Your task to perform on an android device: Search for pizza restaurants on Maps Image 0: 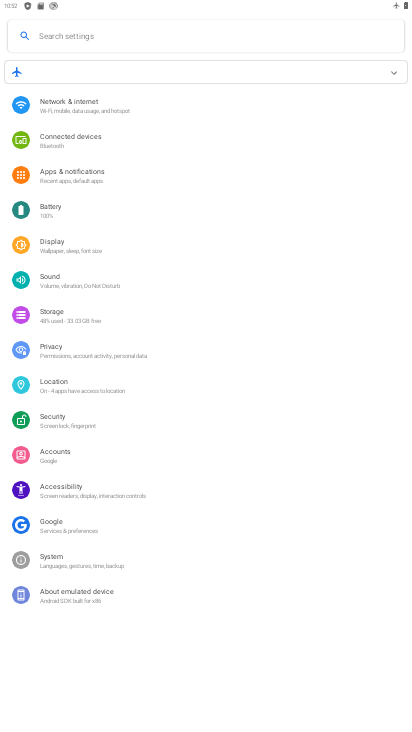
Step 0: press home button
Your task to perform on an android device: Search for pizza restaurants on Maps Image 1: 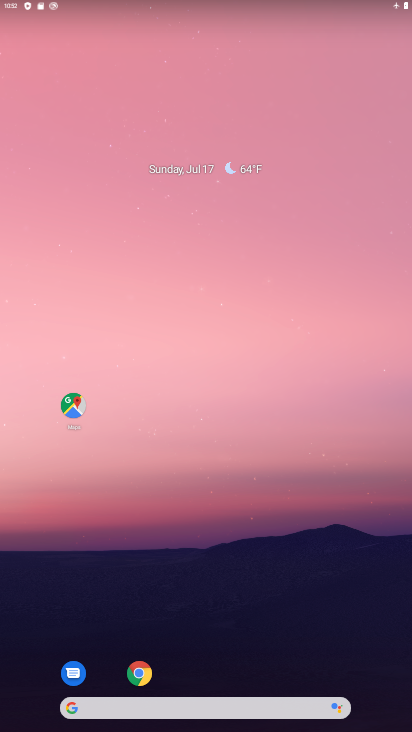
Step 1: drag from (253, 656) to (228, 59)
Your task to perform on an android device: Search for pizza restaurants on Maps Image 2: 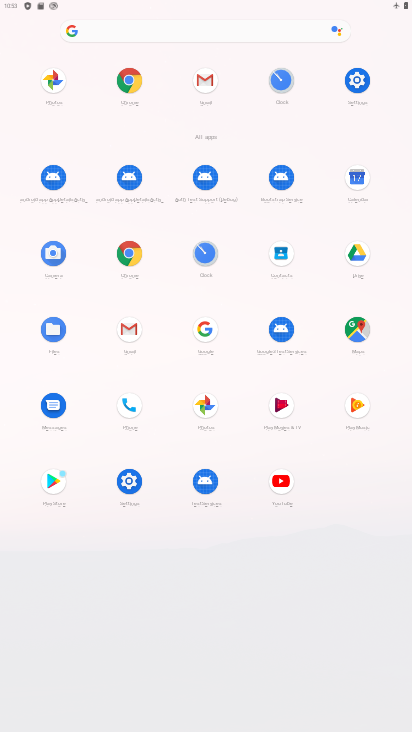
Step 2: click (356, 325)
Your task to perform on an android device: Search for pizza restaurants on Maps Image 3: 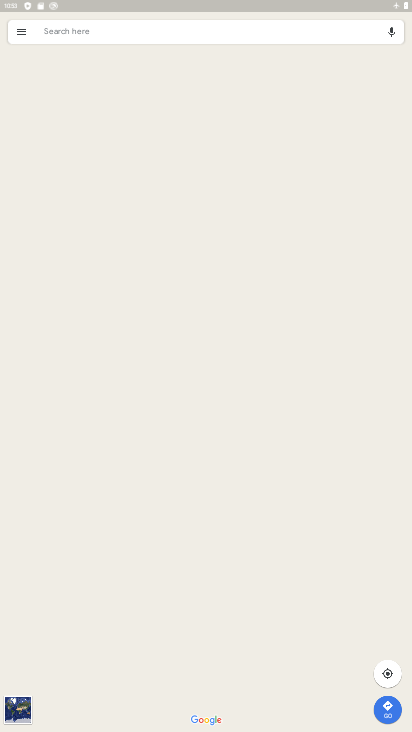
Step 3: click (225, 36)
Your task to perform on an android device: Search for pizza restaurants on Maps Image 4: 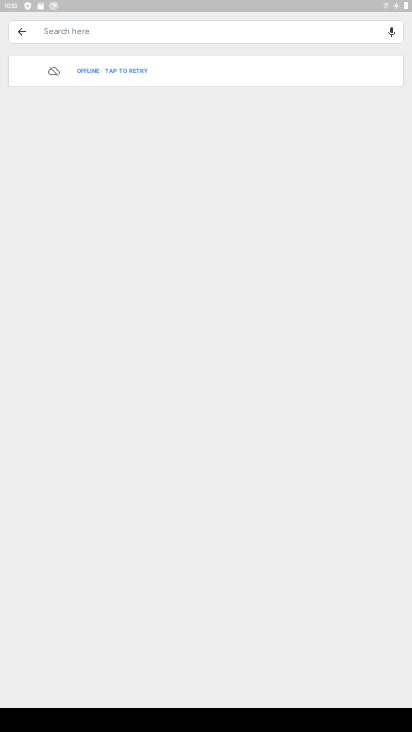
Step 4: type "pizza restaurants"
Your task to perform on an android device: Search for pizza restaurants on Maps Image 5: 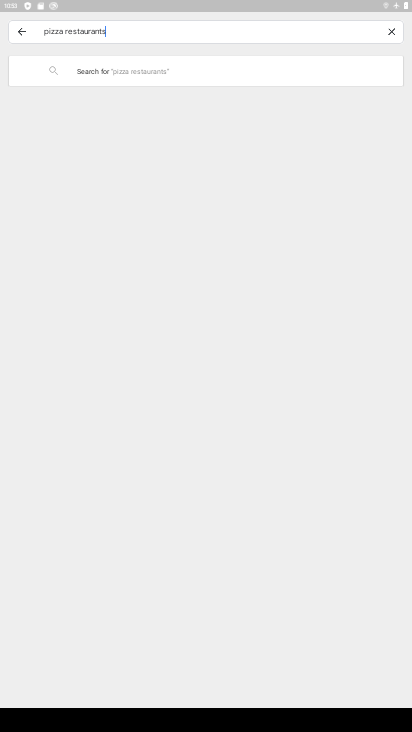
Step 5: click (293, 79)
Your task to perform on an android device: Search for pizza restaurants on Maps Image 6: 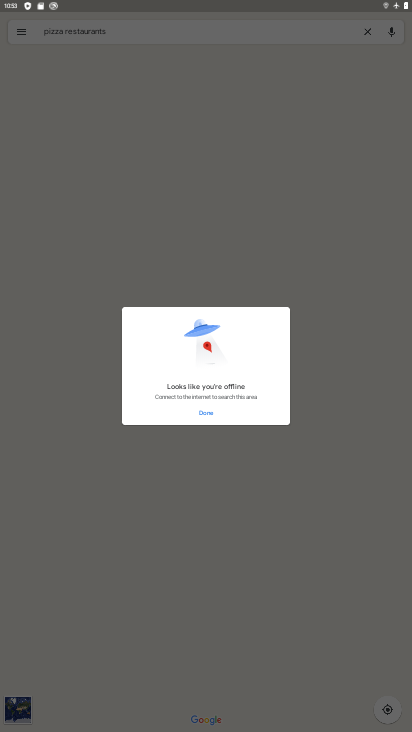
Step 6: task complete